Your task to perform on an android device: Open the Play Movies app and select the watchlist tab. Image 0: 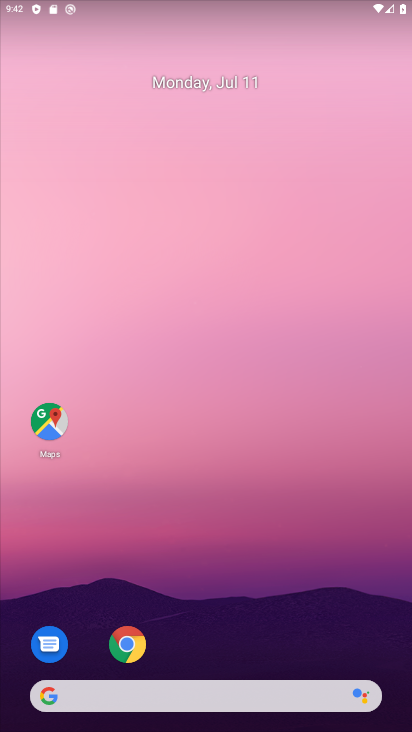
Step 0: drag from (236, 645) to (188, 141)
Your task to perform on an android device: Open the Play Movies app and select the watchlist tab. Image 1: 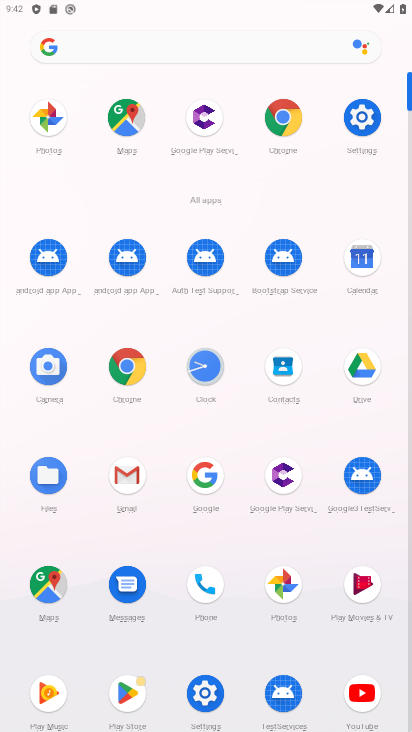
Step 1: click (369, 594)
Your task to perform on an android device: Open the Play Movies app and select the watchlist tab. Image 2: 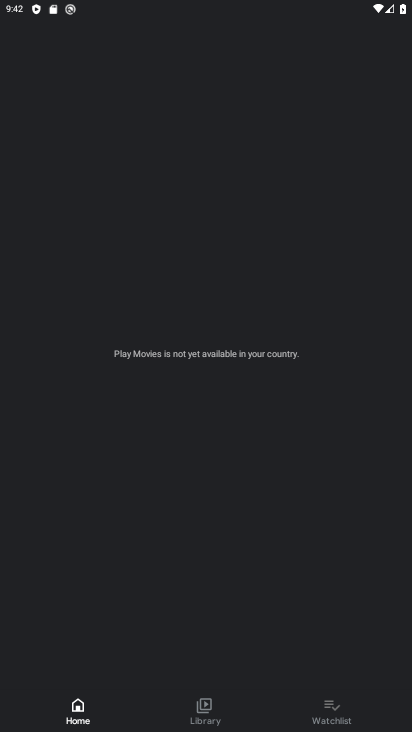
Step 2: click (335, 704)
Your task to perform on an android device: Open the Play Movies app and select the watchlist tab. Image 3: 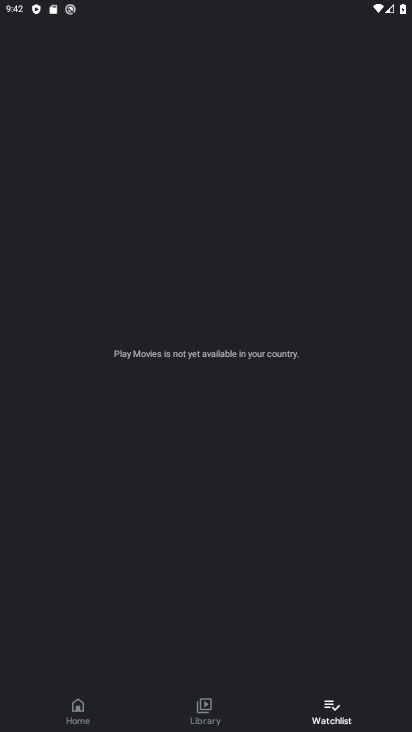
Step 3: task complete